Your task to perform on an android device: turn on priority inbox in the gmail app Image 0: 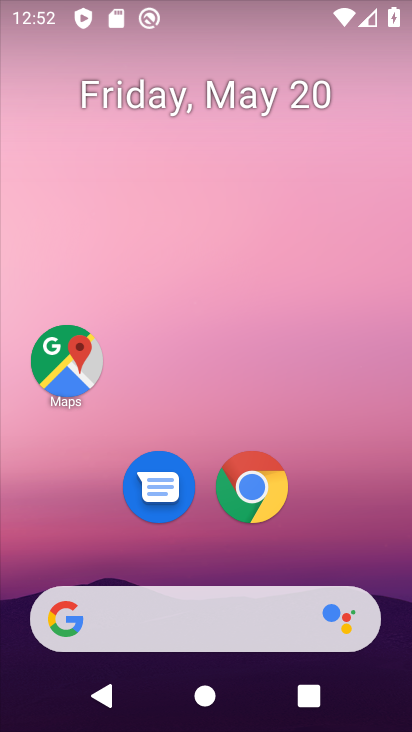
Step 0: drag from (374, 500) to (173, 34)
Your task to perform on an android device: turn on priority inbox in the gmail app Image 1: 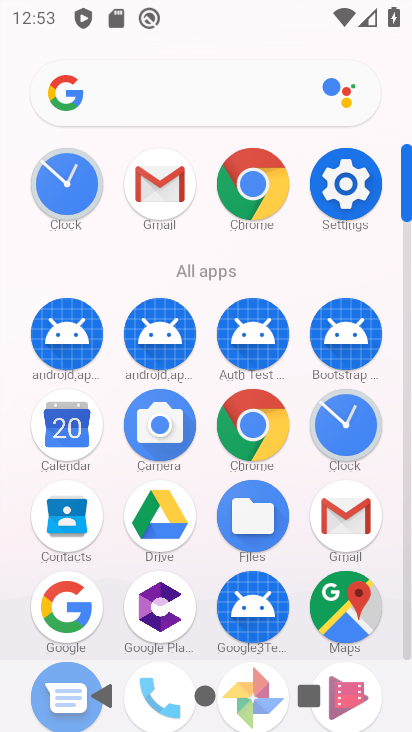
Step 1: click (176, 265)
Your task to perform on an android device: turn on priority inbox in the gmail app Image 2: 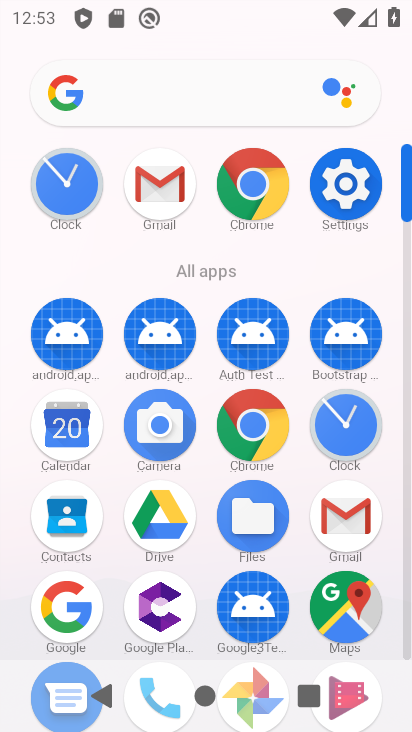
Step 2: click (161, 202)
Your task to perform on an android device: turn on priority inbox in the gmail app Image 3: 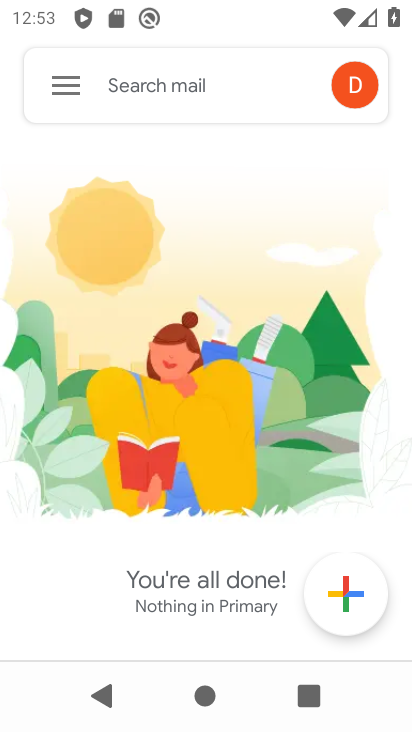
Step 3: click (72, 87)
Your task to perform on an android device: turn on priority inbox in the gmail app Image 4: 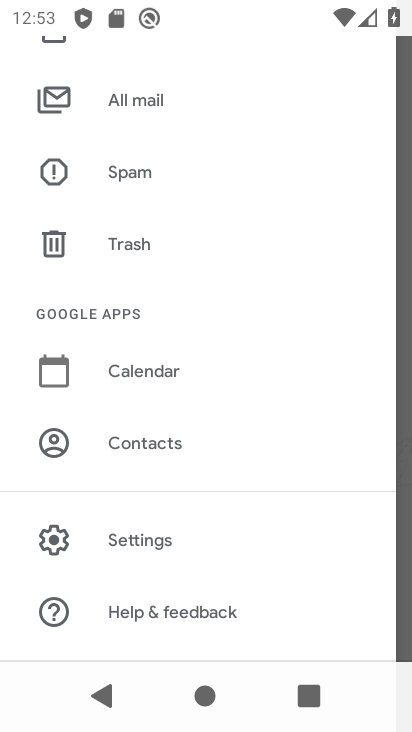
Step 4: click (151, 533)
Your task to perform on an android device: turn on priority inbox in the gmail app Image 5: 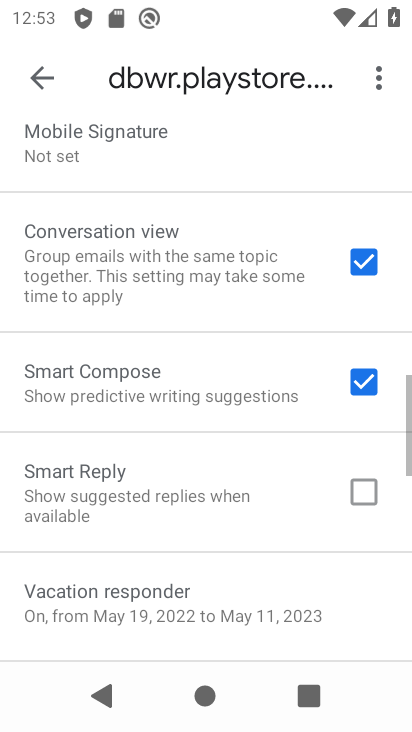
Step 5: drag from (180, 246) to (224, 601)
Your task to perform on an android device: turn on priority inbox in the gmail app Image 6: 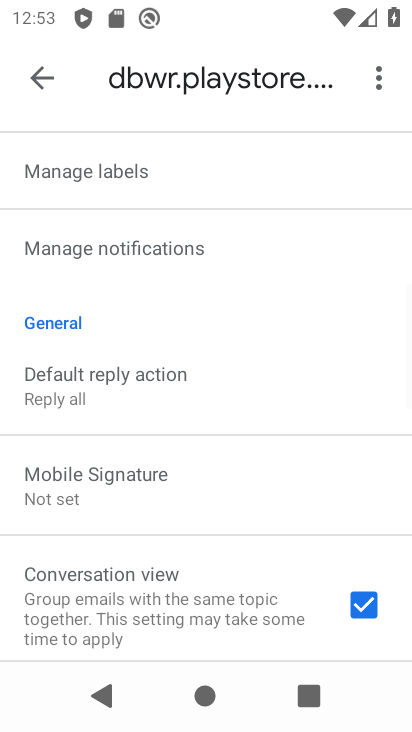
Step 6: drag from (166, 245) to (173, 622)
Your task to perform on an android device: turn on priority inbox in the gmail app Image 7: 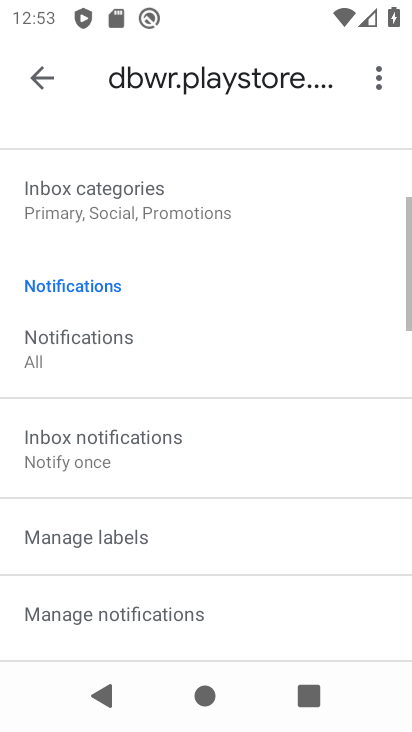
Step 7: click (173, 612)
Your task to perform on an android device: turn on priority inbox in the gmail app Image 8: 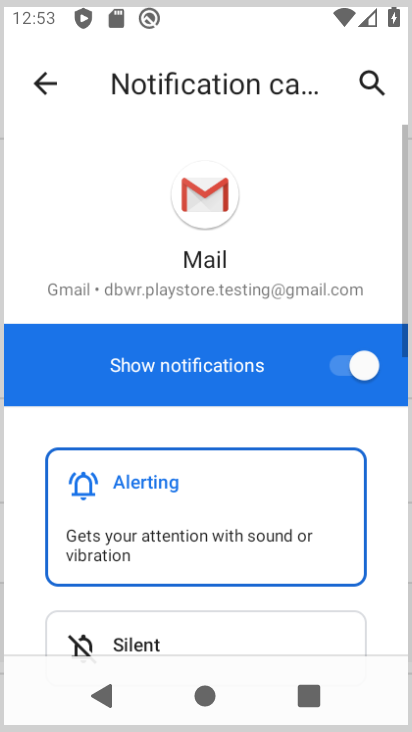
Step 8: drag from (128, 229) to (158, 542)
Your task to perform on an android device: turn on priority inbox in the gmail app Image 9: 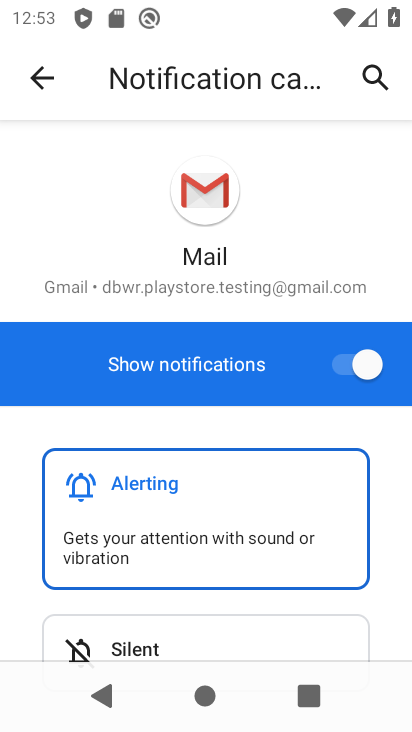
Step 9: click (43, 84)
Your task to perform on an android device: turn on priority inbox in the gmail app Image 10: 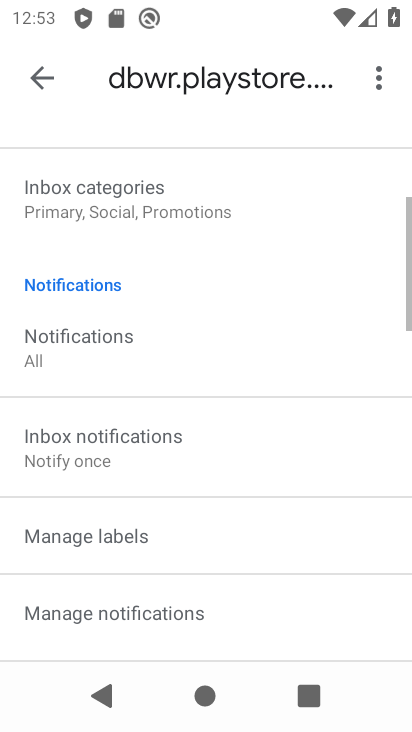
Step 10: drag from (176, 299) to (185, 603)
Your task to perform on an android device: turn on priority inbox in the gmail app Image 11: 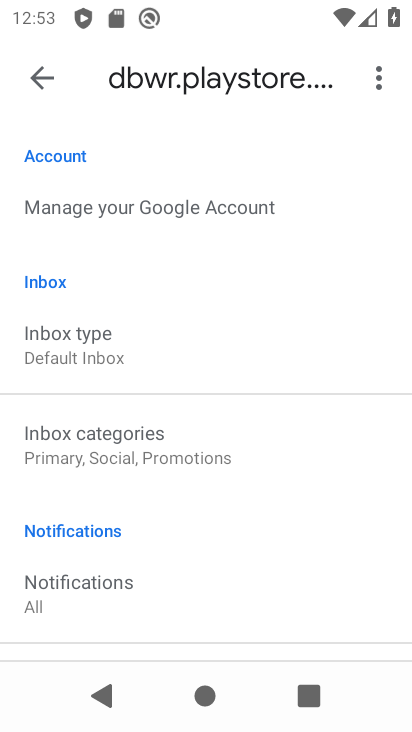
Step 11: click (91, 341)
Your task to perform on an android device: turn on priority inbox in the gmail app Image 12: 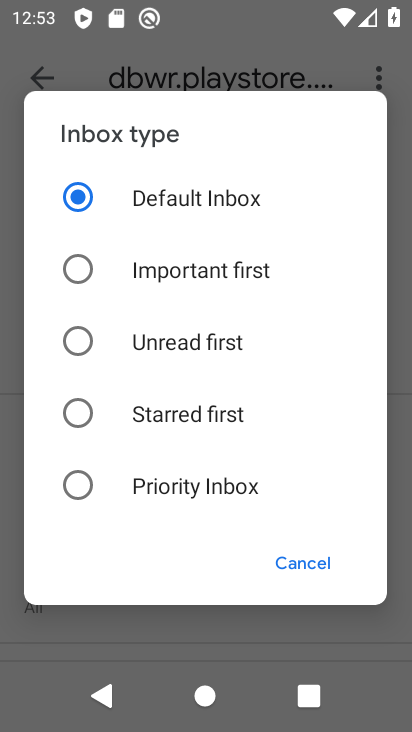
Step 12: task complete